Your task to perform on an android device: Show me recent news Image 0: 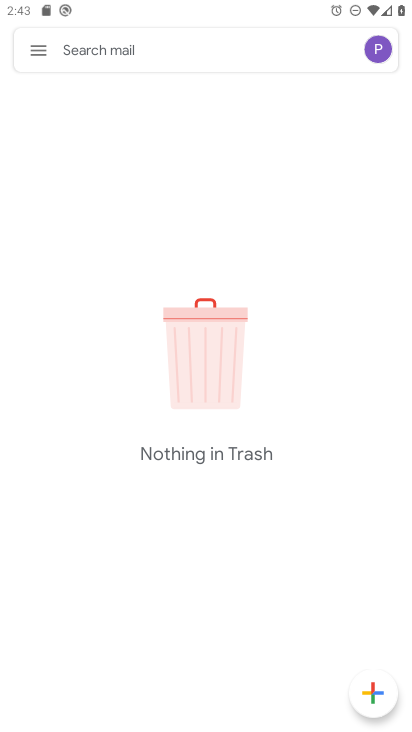
Step 0: press home button
Your task to perform on an android device: Show me recent news Image 1: 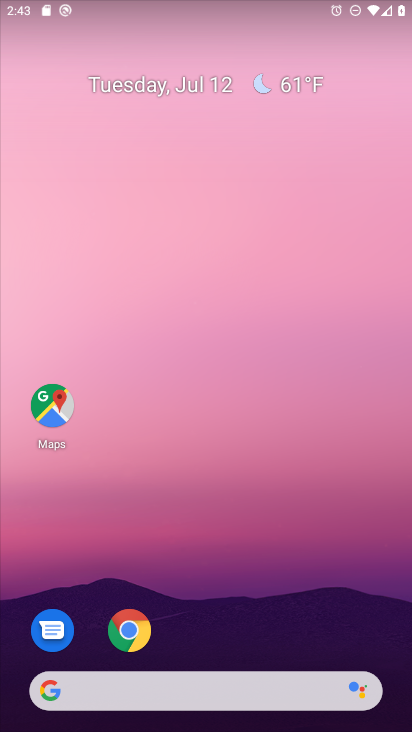
Step 1: drag from (221, 624) to (254, 222)
Your task to perform on an android device: Show me recent news Image 2: 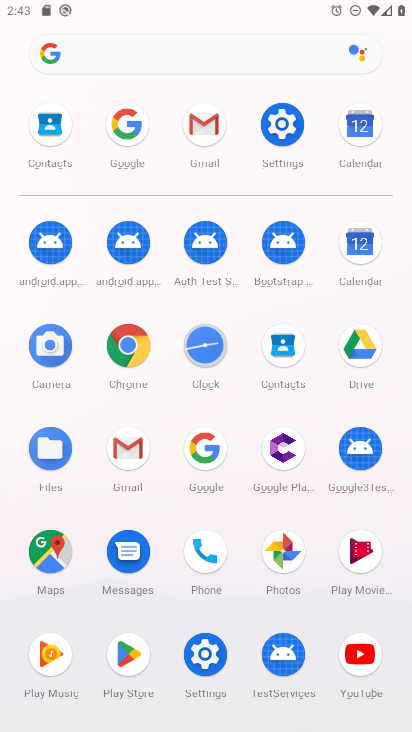
Step 2: click (199, 454)
Your task to perform on an android device: Show me recent news Image 3: 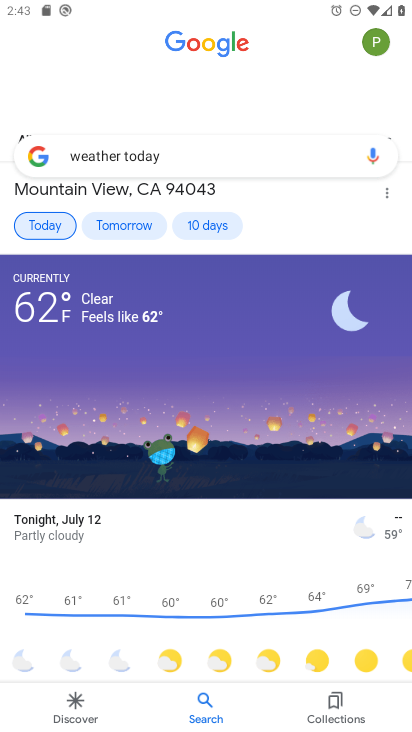
Step 3: click (233, 153)
Your task to perform on an android device: Show me recent news Image 4: 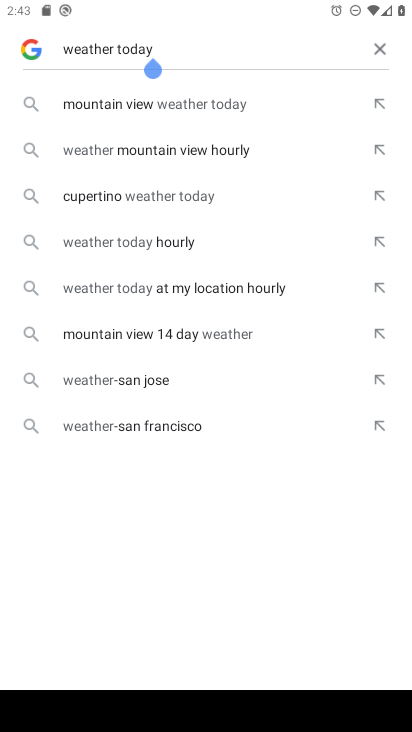
Step 4: click (368, 39)
Your task to perform on an android device: Show me recent news Image 5: 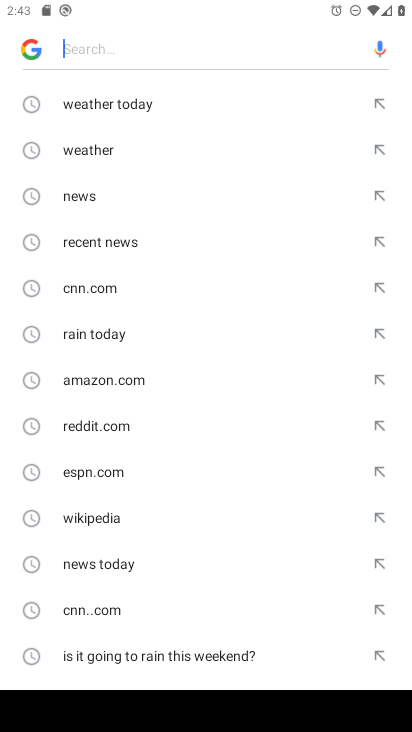
Step 5: click (69, 198)
Your task to perform on an android device: Show me recent news Image 6: 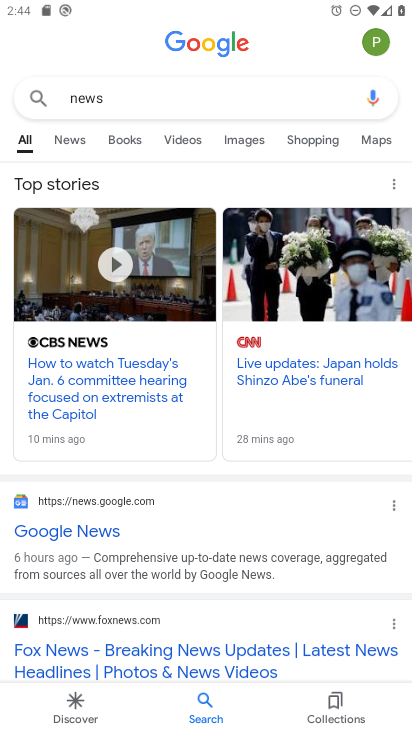
Step 6: click (54, 143)
Your task to perform on an android device: Show me recent news Image 7: 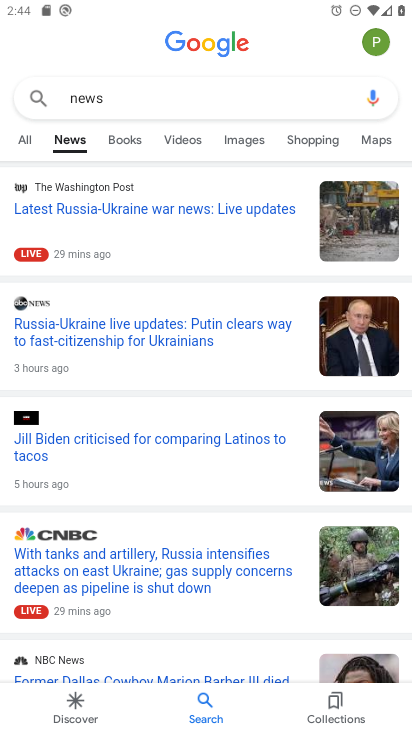
Step 7: task complete